Your task to perform on an android device: Open accessibility settings Image 0: 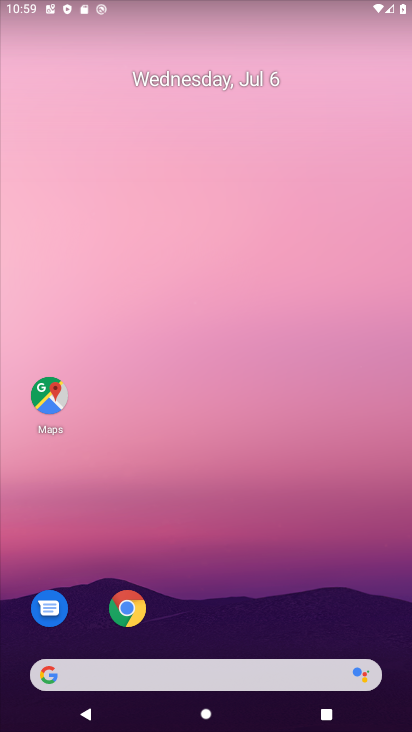
Step 0: drag from (243, 661) to (209, 192)
Your task to perform on an android device: Open accessibility settings Image 1: 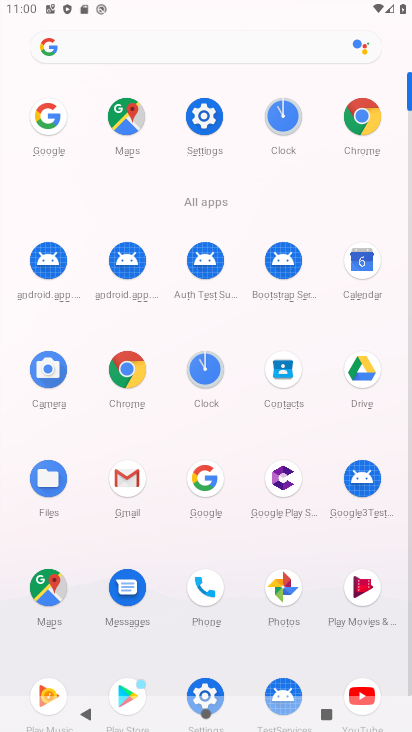
Step 1: click (209, 122)
Your task to perform on an android device: Open accessibility settings Image 2: 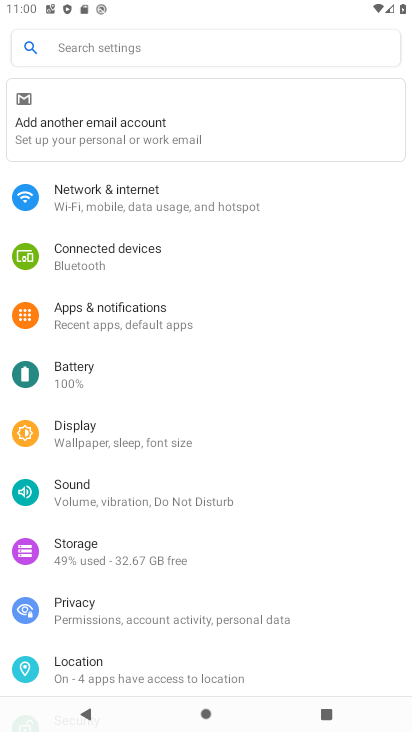
Step 2: drag from (237, 678) to (195, 243)
Your task to perform on an android device: Open accessibility settings Image 3: 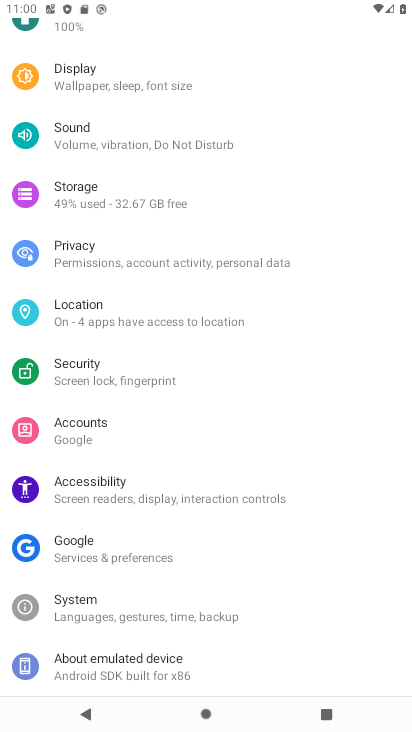
Step 3: click (82, 487)
Your task to perform on an android device: Open accessibility settings Image 4: 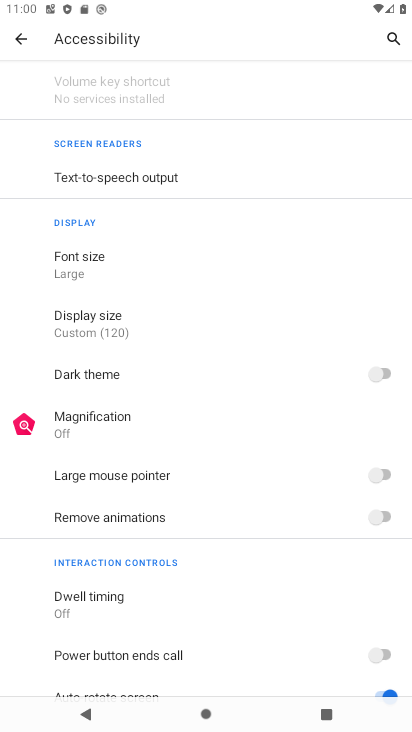
Step 4: task complete